Your task to perform on an android device: See recent photos Image 0: 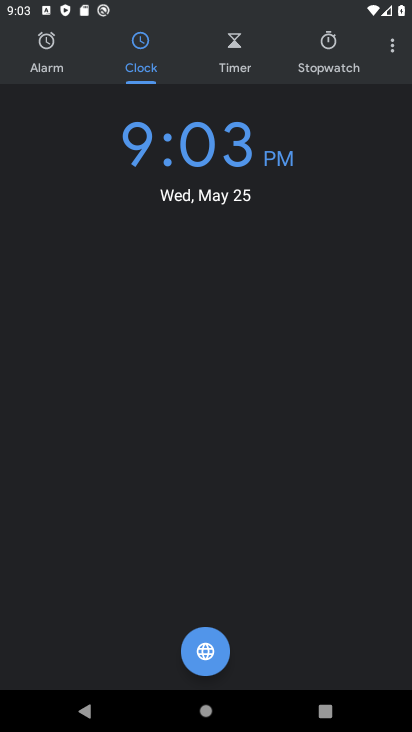
Step 0: press home button
Your task to perform on an android device: See recent photos Image 1: 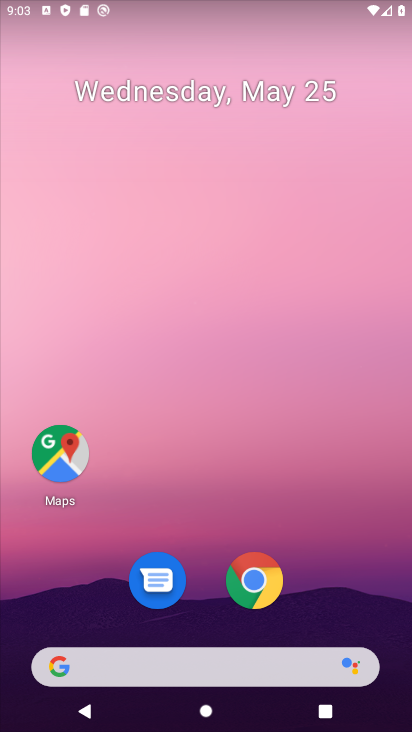
Step 1: drag from (10, 489) to (209, 107)
Your task to perform on an android device: See recent photos Image 2: 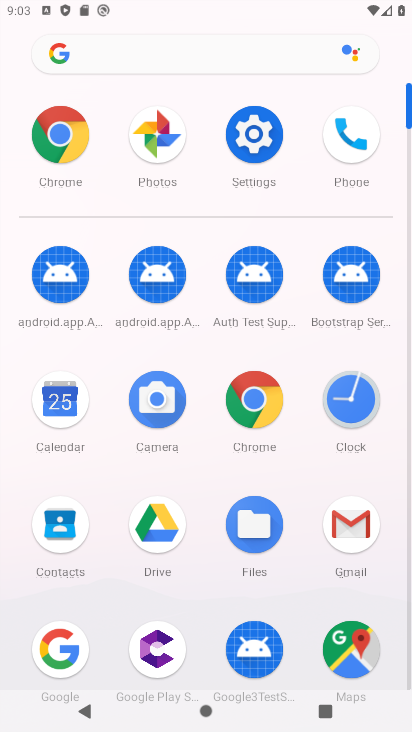
Step 2: click (149, 149)
Your task to perform on an android device: See recent photos Image 3: 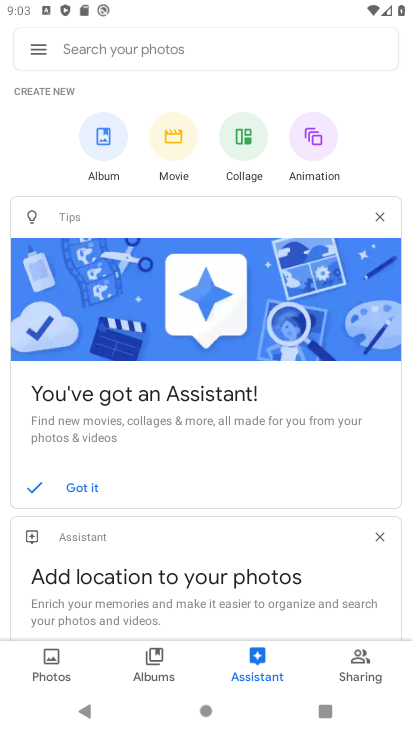
Step 3: task complete